Your task to perform on an android device: Turn off the flashlight Image 0: 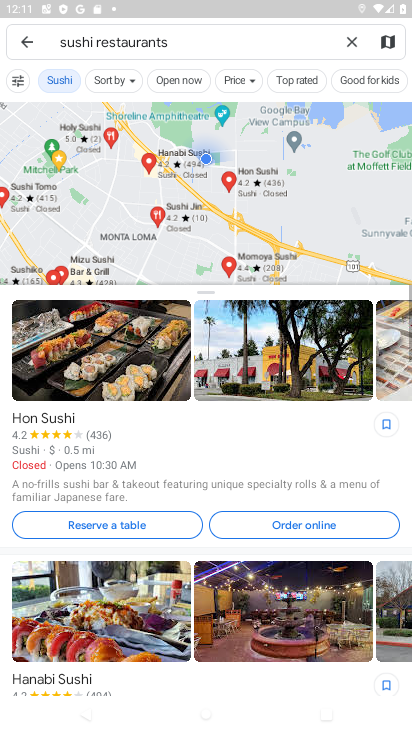
Step 0: press home button
Your task to perform on an android device: Turn off the flashlight Image 1: 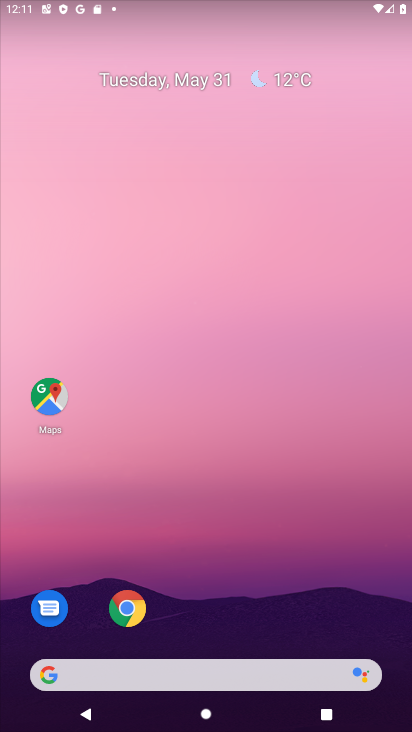
Step 1: drag from (212, 632) to (256, 81)
Your task to perform on an android device: Turn off the flashlight Image 2: 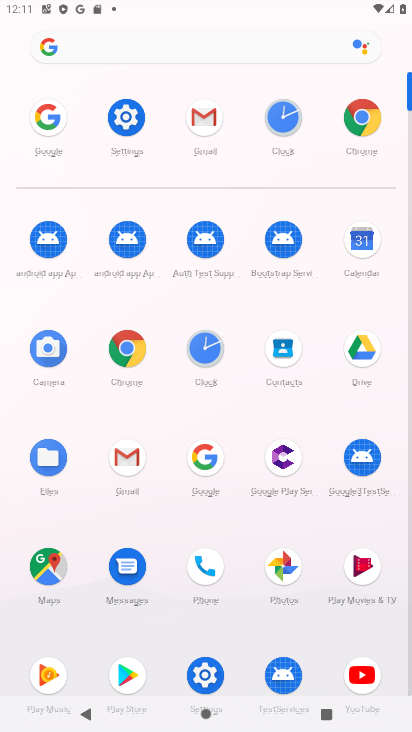
Step 2: click (124, 112)
Your task to perform on an android device: Turn off the flashlight Image 3: 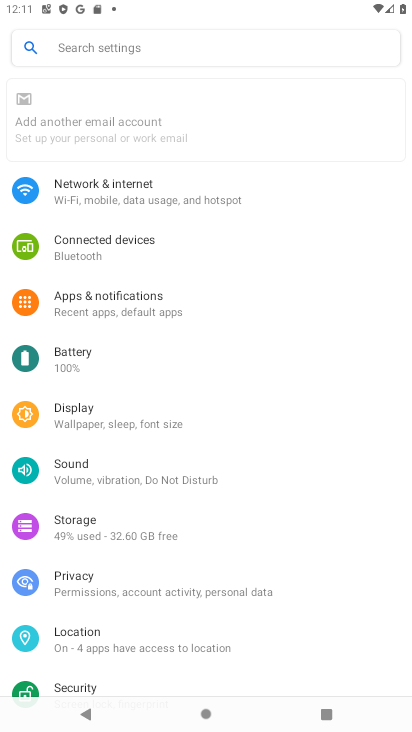
Step 3: click (160, 35)
Your task to perform on an android device: Turn off the flashlight Image 4: 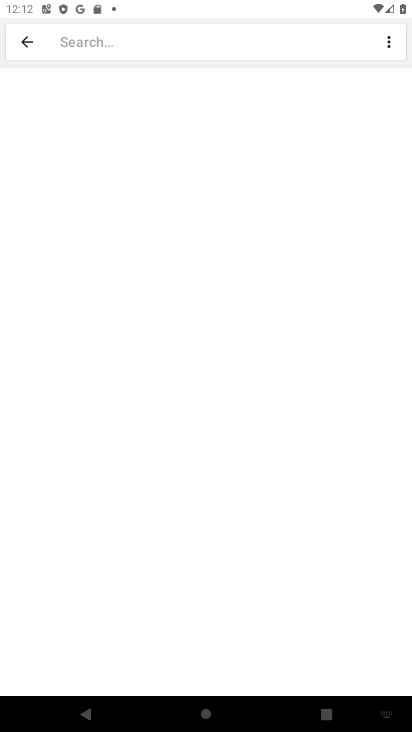
Step 4: type "flash"
Your task to perform on an android device: Turn off the flashlight Image 5: 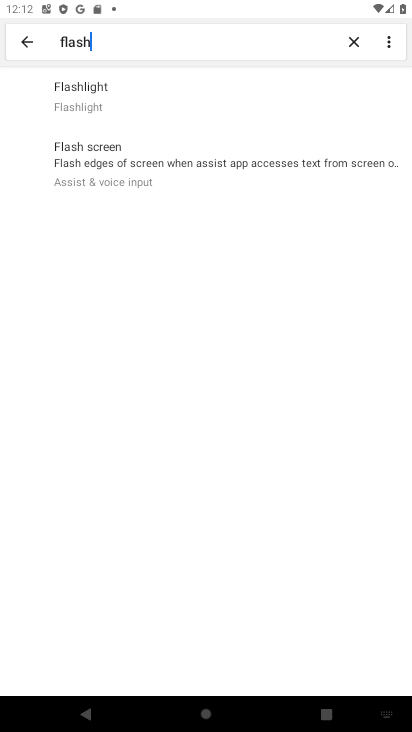
Step 5: task complete